Your task to perform on an android device: set an alarm Image 0: 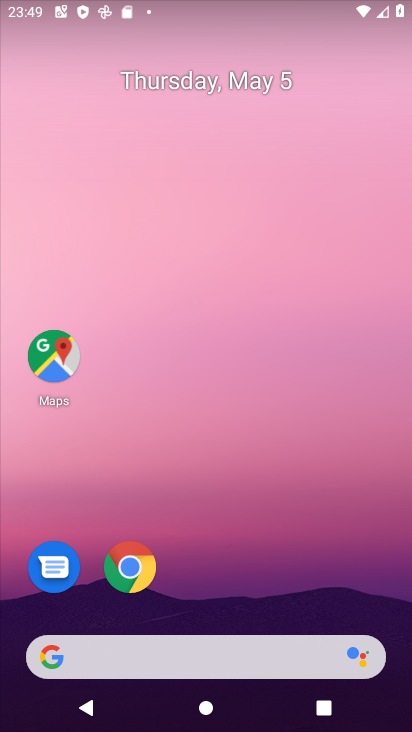
Step 0: drag from (212, 598) to (216, 166)
Your task to perform on an android device: set an alarm Image 1: 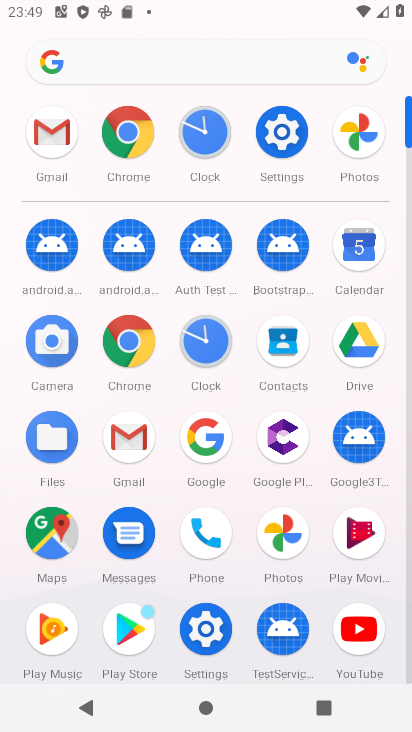
Step 1: click (212, 336)
Your task to perform on an android device: set an alarm Image 2: 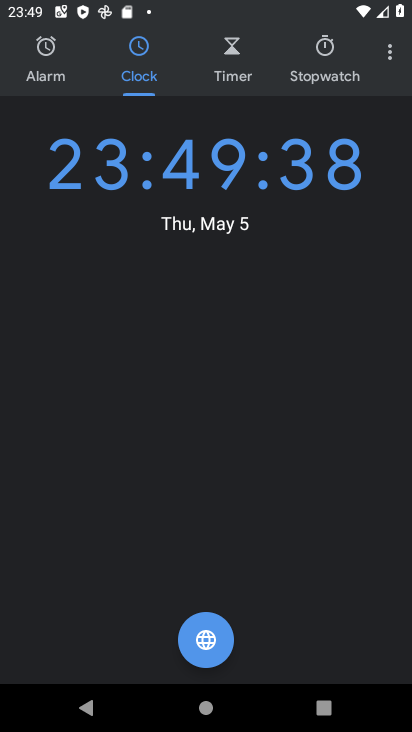
Step 2: click (46, 52)
Your task to perform on an android device: set an alarm Image 3: 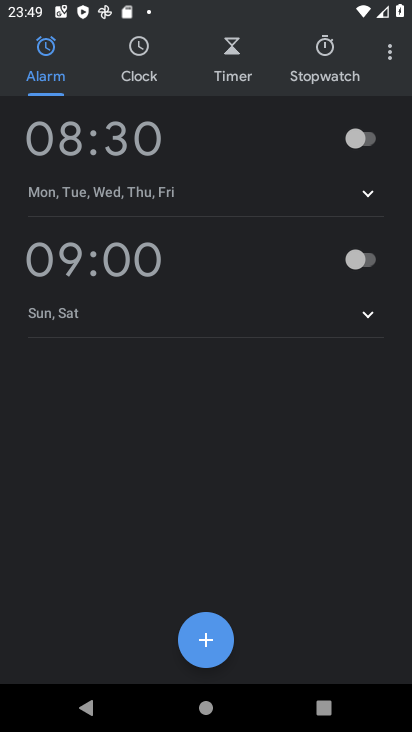
Step 3: click (374, 145)
Your task to perform on an android device: set an alarm Image 4: 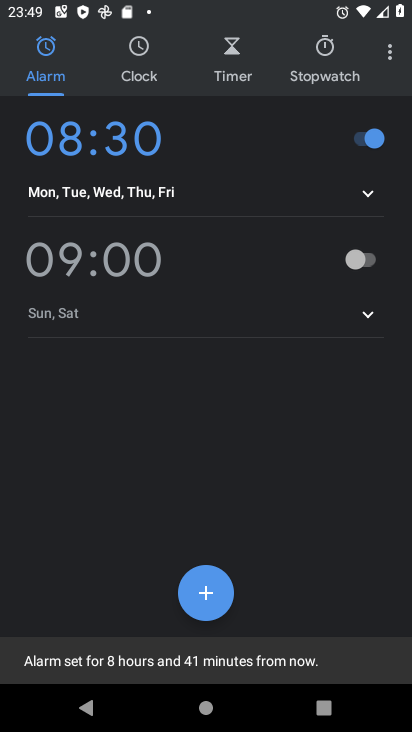
Step 4: task complete